Your task to perform on an android device: Clear the shopping cart on amazon. Add "bose quietcomfort 35" to the cart on amazon Image 0: 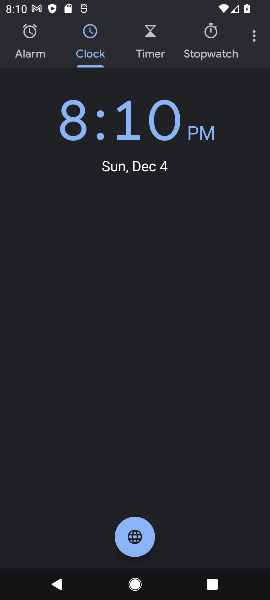
Step 0: press home button
Your task to perform on an android device: Clear the shopping cart on amazon. Add "bose quietcomfort 35" to the cart on amazon Image 1: 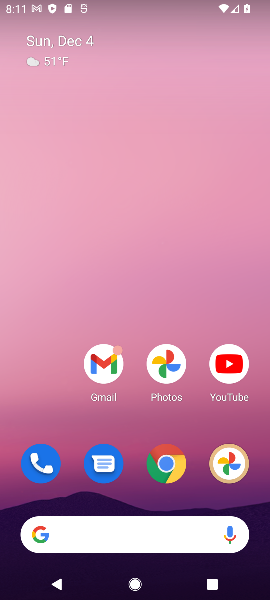
Step 1: task complete